Your task to perform on an android device: Open location settings Image 0: 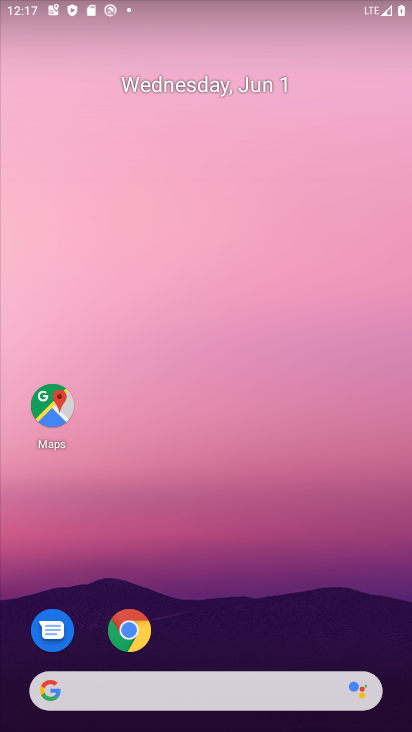
Step 0: drag from (296, 629) to (280, 143)
Your task to perform on an android device: Open location settings Image 1: 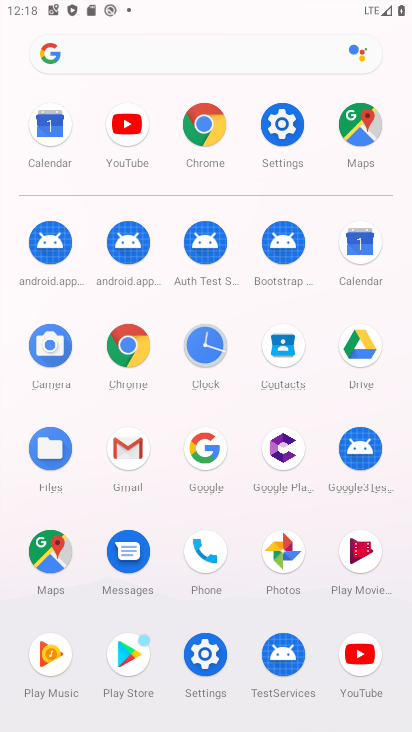
Step 1: click (282, 120)
Your task to perform on an android device: Open location settings Image 2: 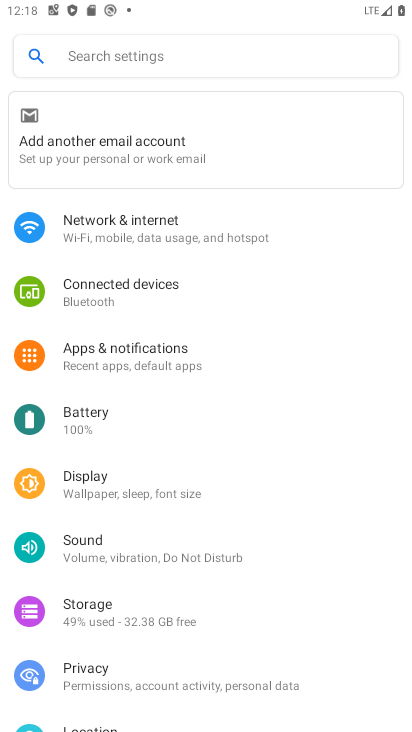
Step 2: drag from (358, 675) to (334, 277)
Your task to perform on an android device: Open location settings Image 3: 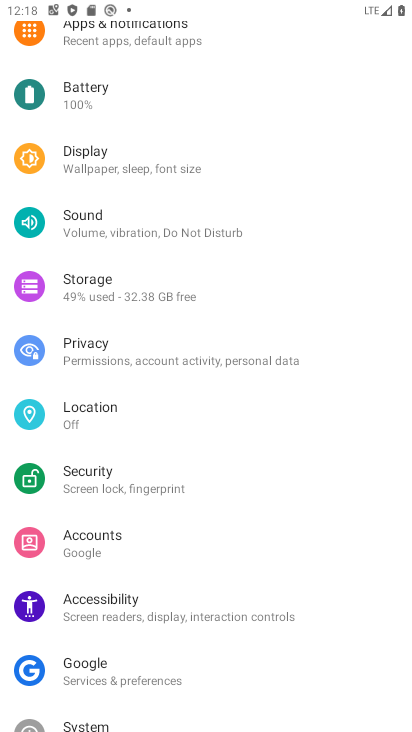
Step 3: click (133, 419)
Your task to perform on an android device: Open location settings Image 4: 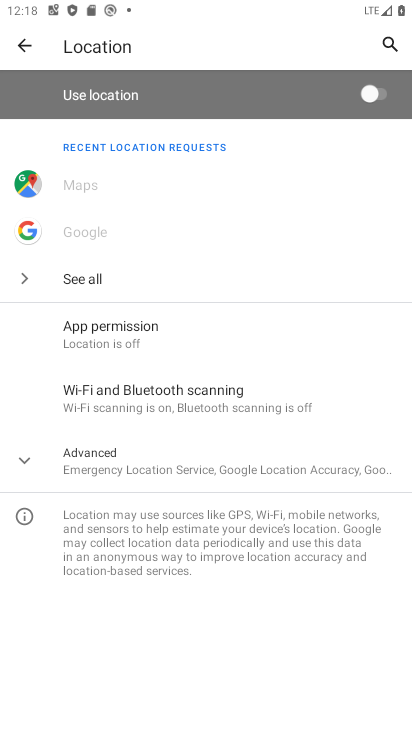
Step 4: task complete